Your task to perform on an android device: change notifications settings Image 0: 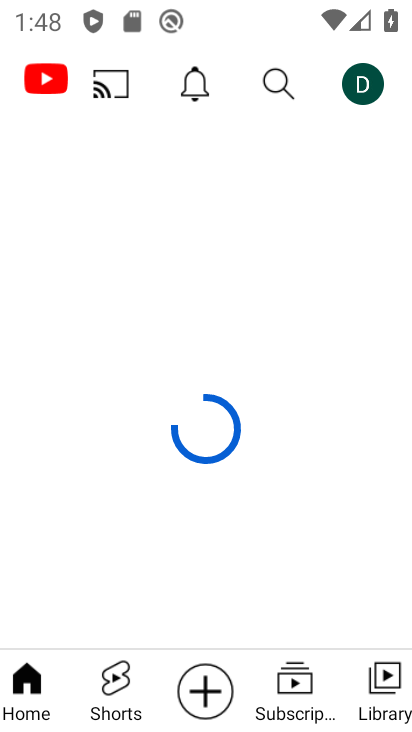
Step 0: press home button
Your task to perform on an android device: change notifications settings Image 1: 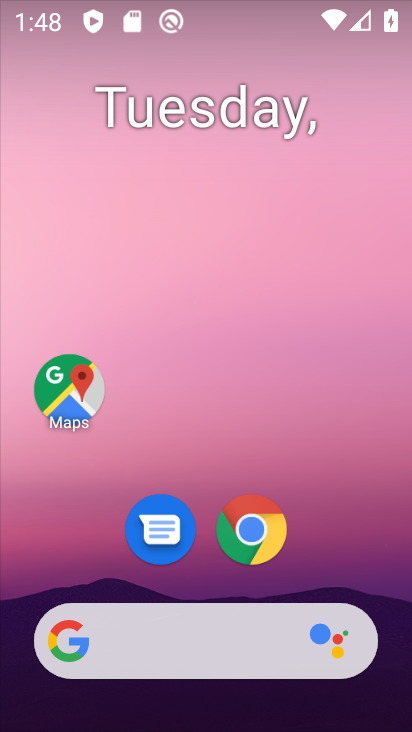
Step 1: drag from (393, 623) to (311, 103)
Your task to perform on an android device: change notifications settings Image 2: 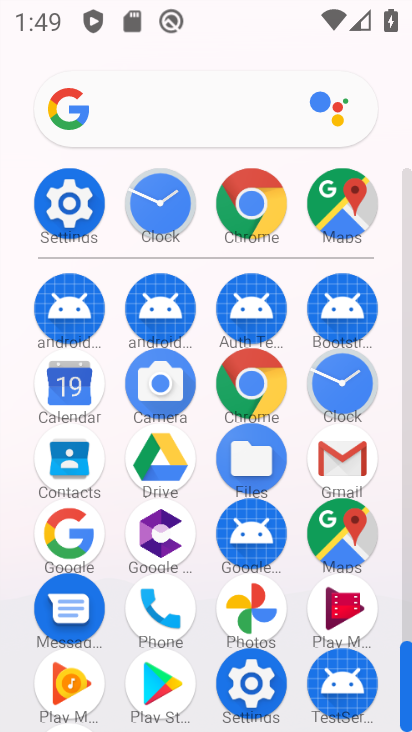
Step 2: click (245, 668)
Your task to perform on an android device: change notifications settings Image 3: 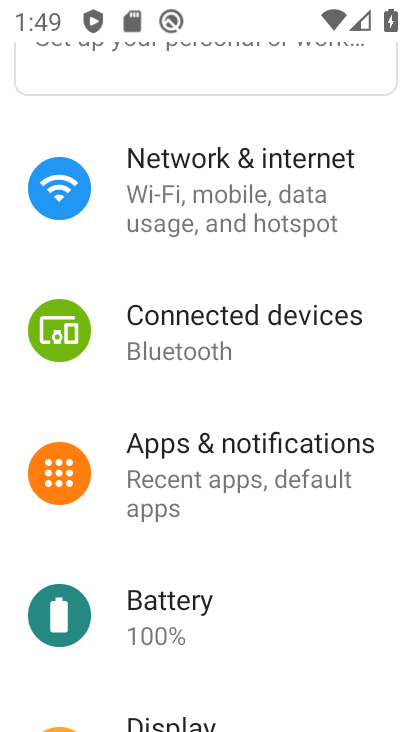
Step 3: click (238, 482)
Your task to perform on an android device: change notifications settings Image 4: 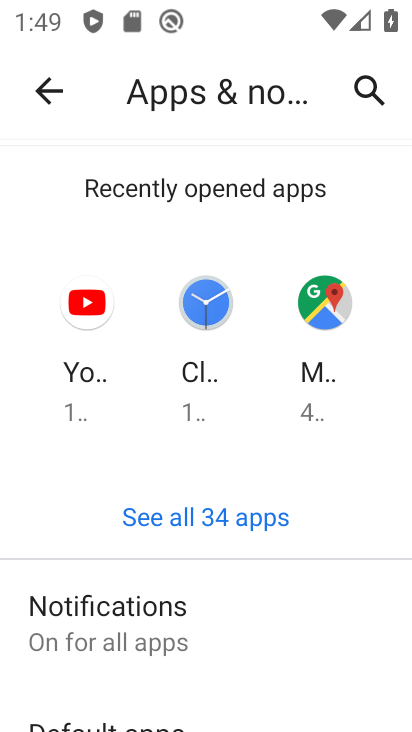
Step 4: click (232, 652)
Your task to perform on an android device: change notifications settings Image 5: 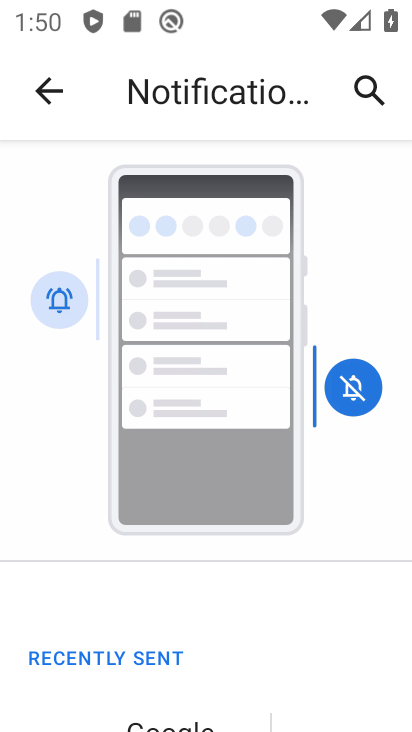
Step 5: task complete